Your task to perform on an android device: check out phone information Image 0: 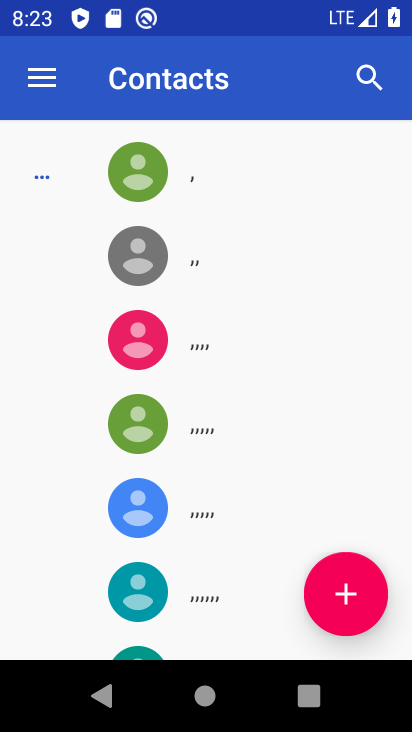
Step 0: drag from (273, 655) to (326, 368)
Your task to perform on an android device: check out phone information Image 1: 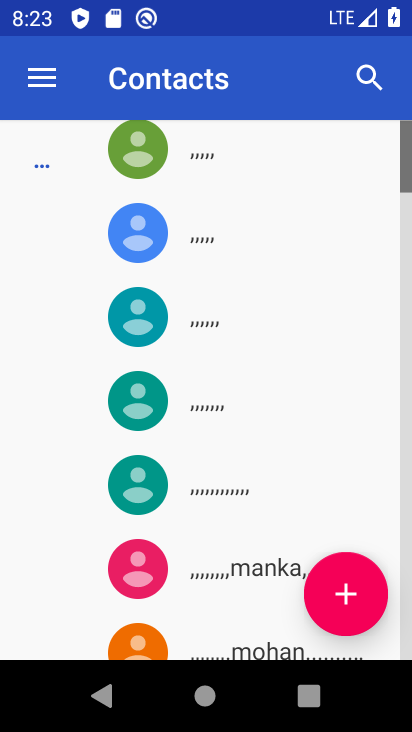
Step 1: press home button
Your task to perform on an android device: check out phone information Image 2: 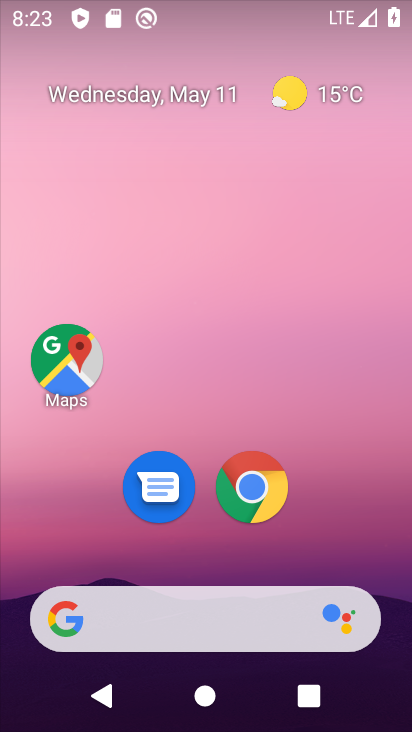
Step 2: drag from (280, 671) to (288, 241)
Your task to perform on an android device: check out phone information Image 3: 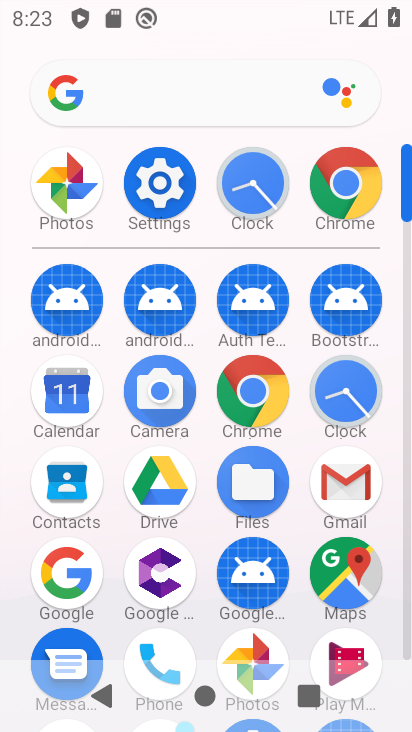
Step 3: click (162, 189)
Your task to perform on an android device: check out phone information Image 4: 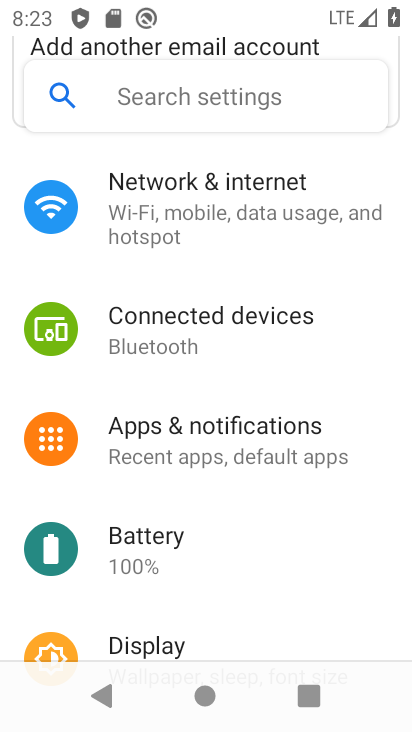
Step 4: click (156, 97)
Your task to perform on an android device: check out phone information Image 5: 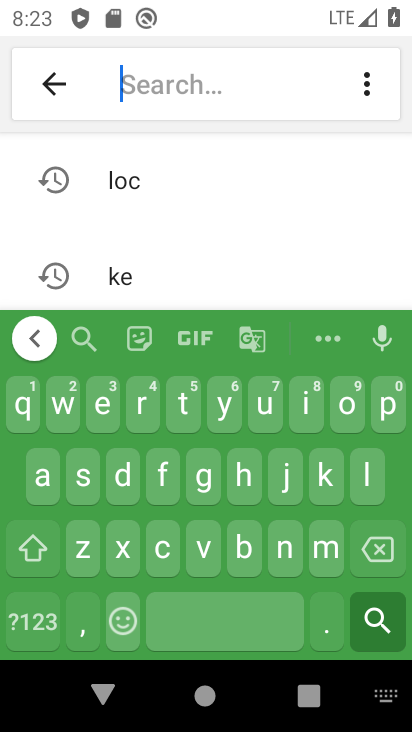
Step 5: click (34, 470)
Your task to perform on an android device: check out phone information Image 6: 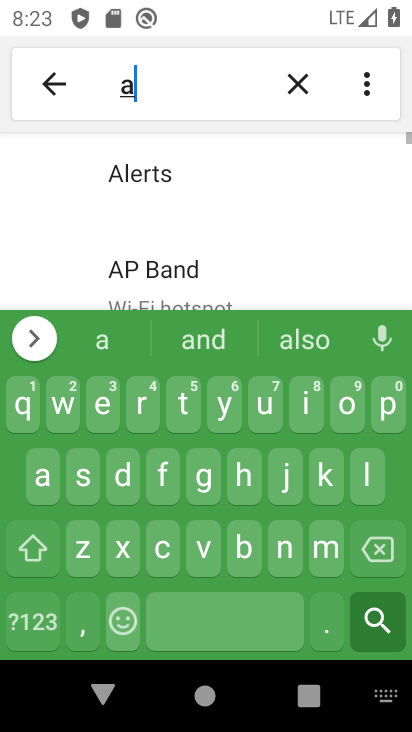
Step 6: click (242, 554)
Your task to perform on an android device: check out phone information Image 7: 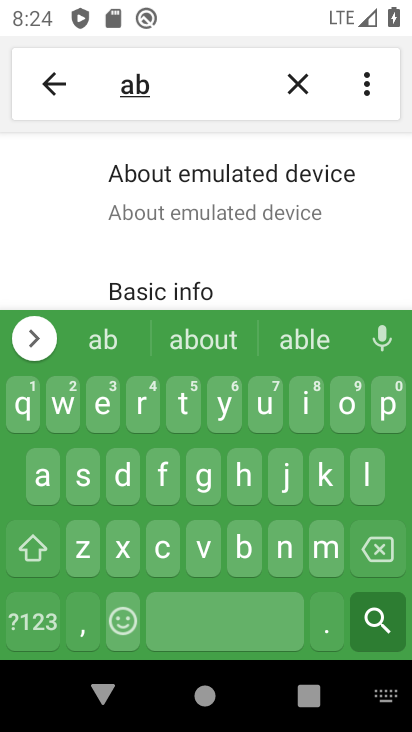
Step 7: click (194, 211)
Your task to perform on an android device: check out phone information Image 8: 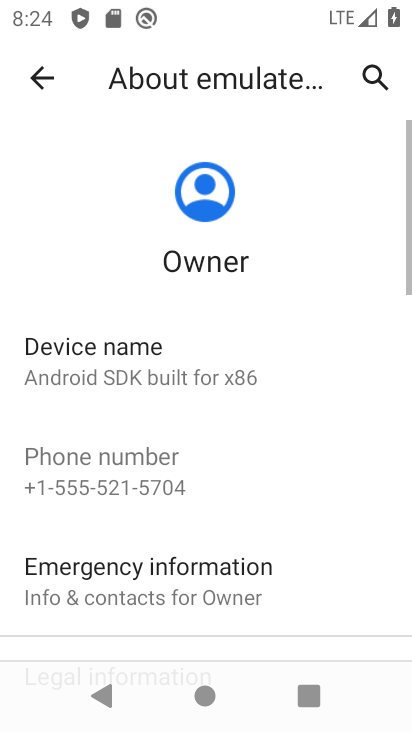
Step 8: task complete